Your task to perform on an android device: turn off notifications in google photos Image 0: 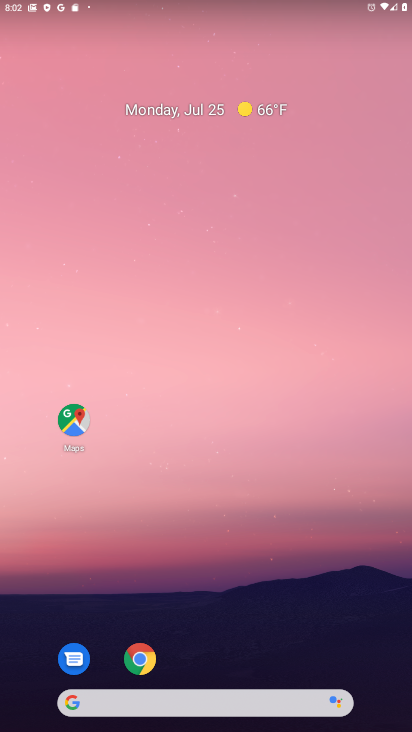
Step 0: drag from (204, 684) to (258, 2)
Your task to perform on an android device: turn off notifications in google photos Image 1: 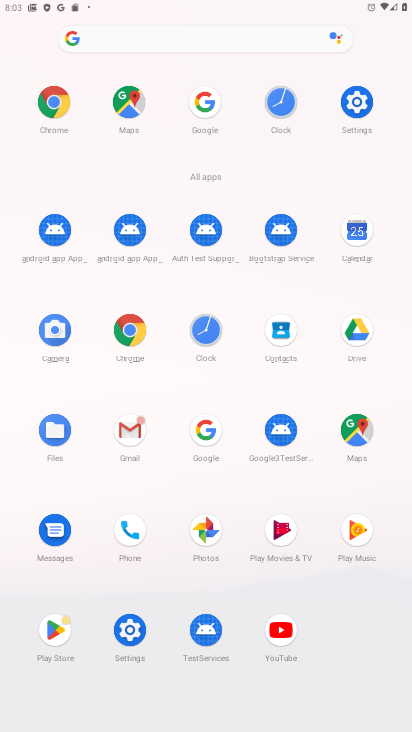
Step 1: click (199, 535)
Your task to perform on an android device: turn off notifications in google photos Image 2: 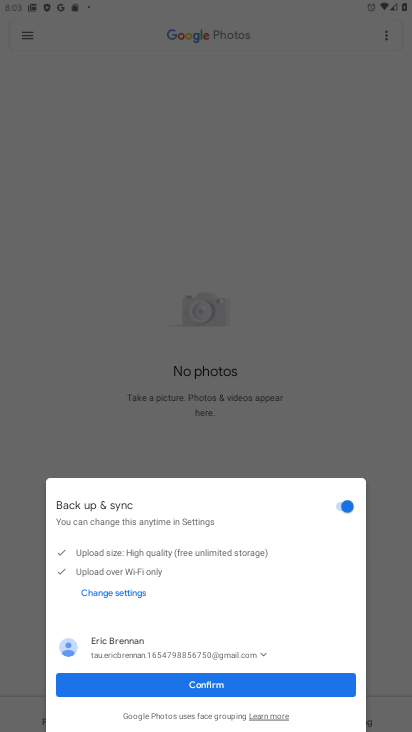
Step 2: click (209, 680)
Your task to perform on an android device: turn off notifications in google photos Image 3: 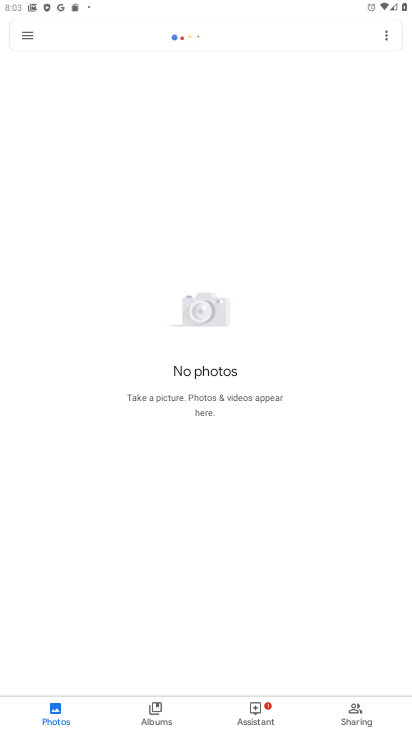
Step 3: click (26, 25)
Your task to perform on an android device: turn off notifications in google photos Image 4: 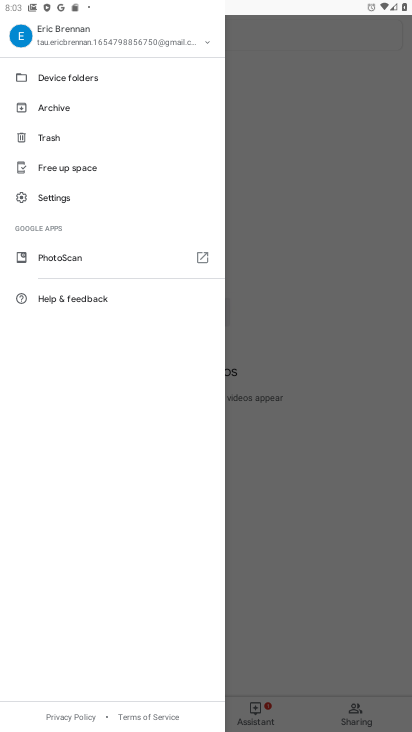
Step 4: click (54, 199)
Your task to perform on an android device: turn off notifications in google photos Image 5: 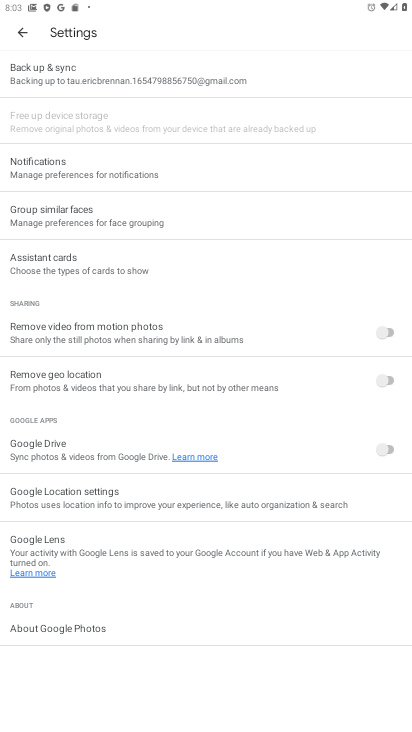
Step 5: click (64, 157)
Your task to perform on an android device: turn off notifications in google photos Image 6: 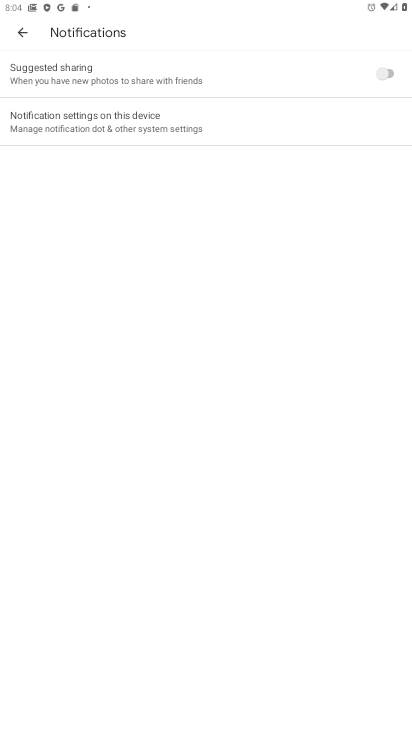
Step 6: press home button
Your task to perform on an android device: turn off notifications in google photos Image 7: 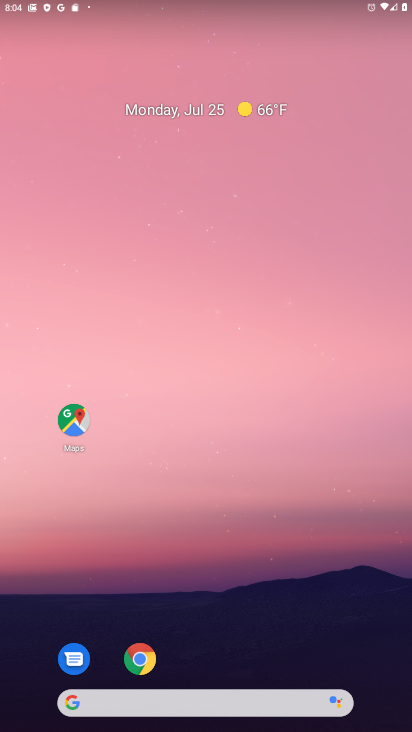
Step 7: drag from (223, 668) to (167, 79)
Your task to perform on an android device: turn off notifications in google photos Image 8: 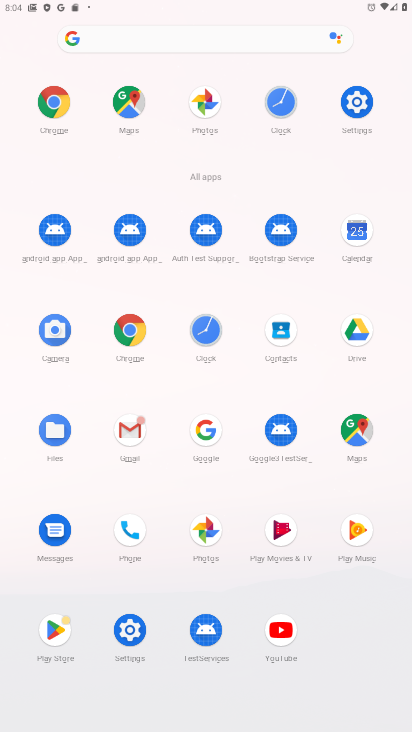
Step 8: click (197, 534)
Your task to perform on an android device: turn off notifications in google photos Image 9: 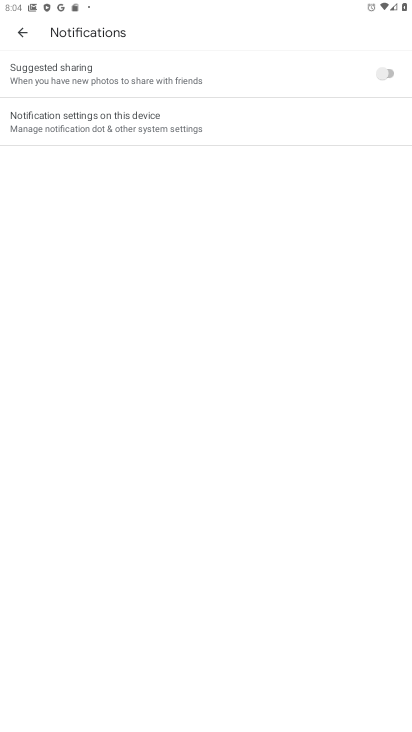
Step 9: click (150, 141)
Your task to perform on an android device: turn off notifications in google photos Image 10: 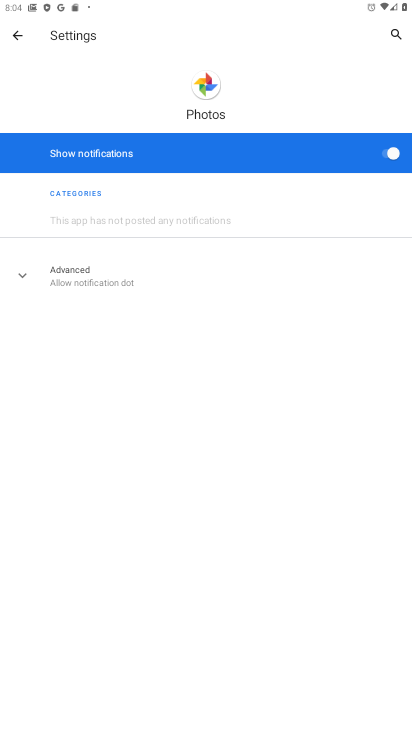
Step 10: click (392, 155)
Your task to perform on an android device: turn off notifications in google photos Image 11: 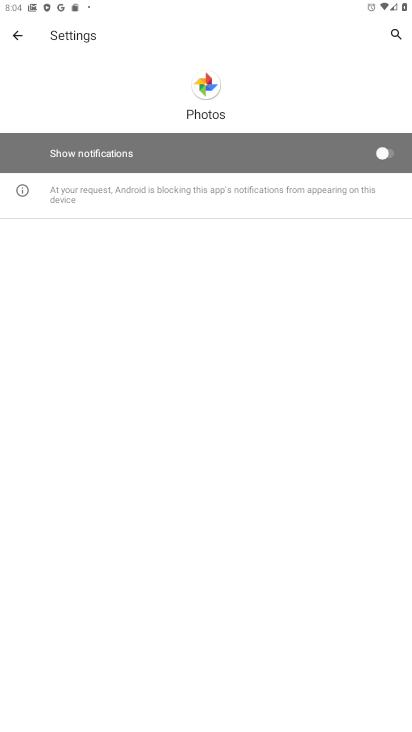
Step 11: task complete